Your task to perform on an android device: Open wifi settings Image 0: 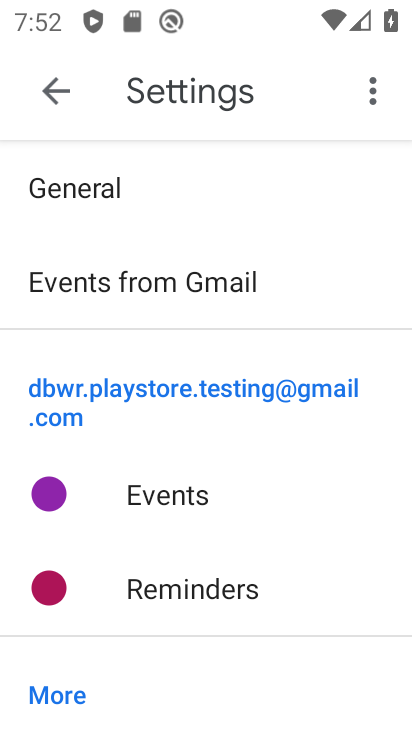
Step 0: press home button
Your task to perform on an android device: Open wifi settings Image 1: 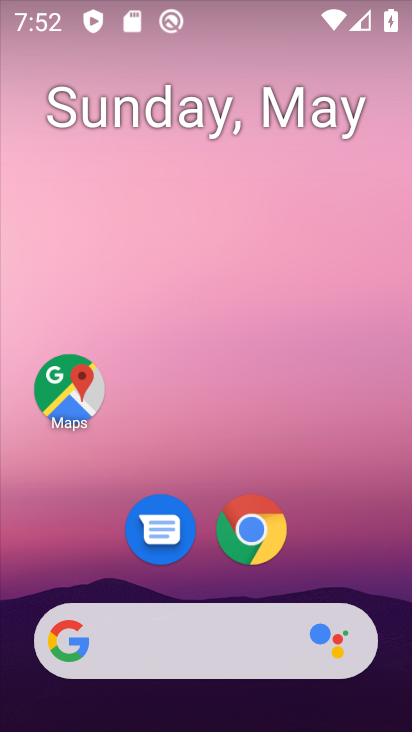
Step 1: drag from (331, 566) to (331, 163)
Your task to perform on an android device: Open wifi settings Image 2: 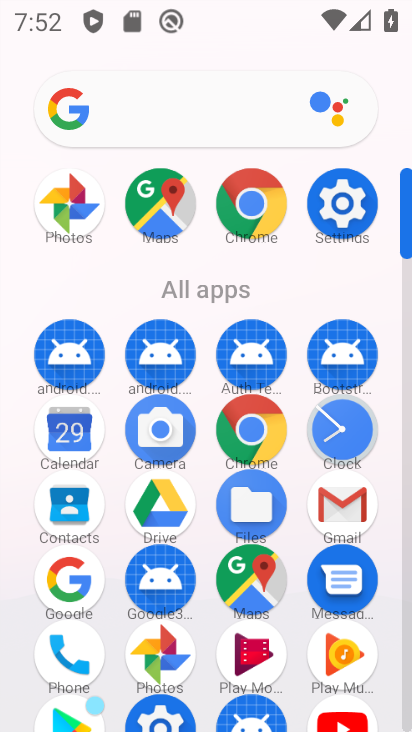
Step 2: click (339, 209)
Your task to perform on an android device: Open wifi settings Image 3: 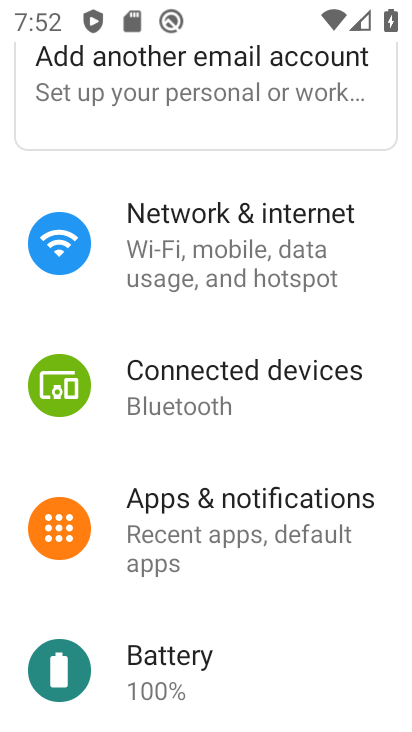
Step 3: click (264, 260)
Your task to perform on an android device: Open wifi settings Image 4: 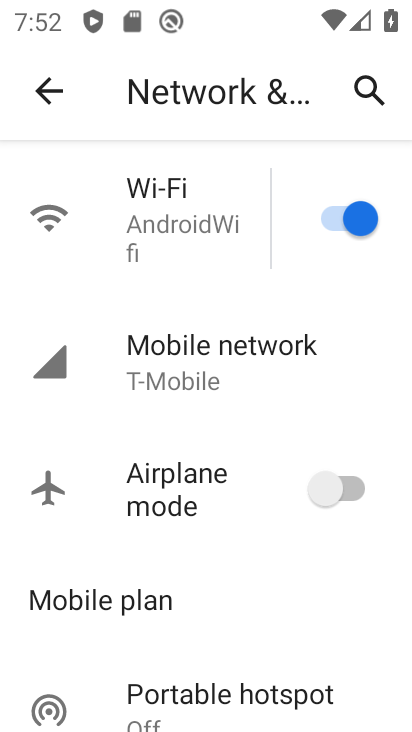
Step 4: task complete